Your task to perform on an android device: check android version Image 0: 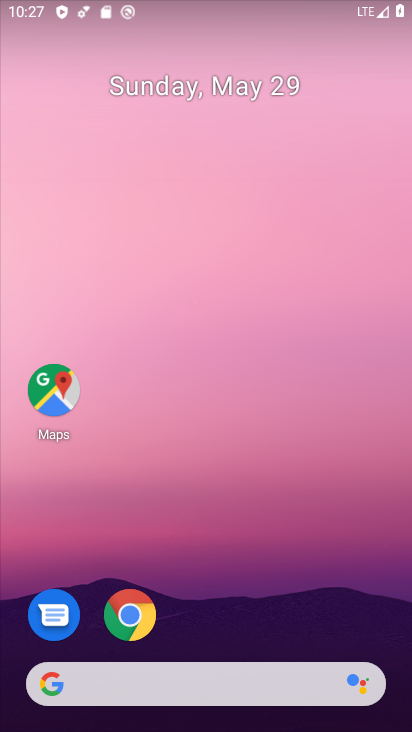
Step 0: drag from (366, 640) to (365, 198)
Your task to perform on an android device: check android version Image 1: 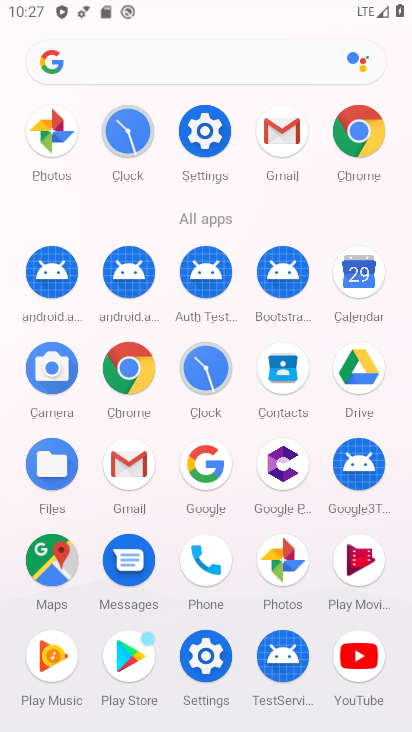
Step 1: click (212, 660)
Your task to perform on an android device: check android version Image 2: 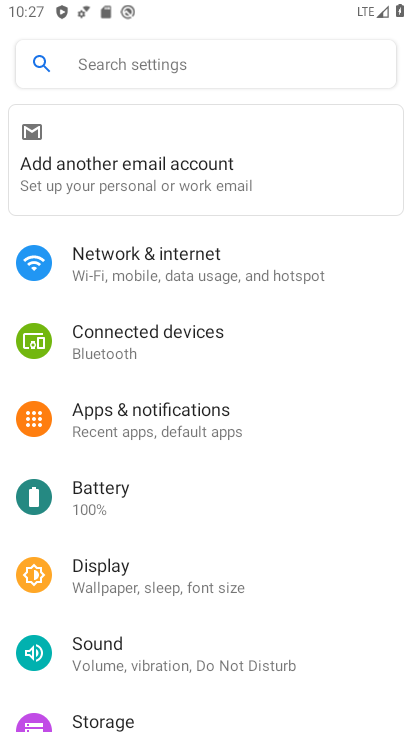
Step 2: drag from (353, 594) to (360, 464)
Your task to perform on an android device: check android version Image 3: 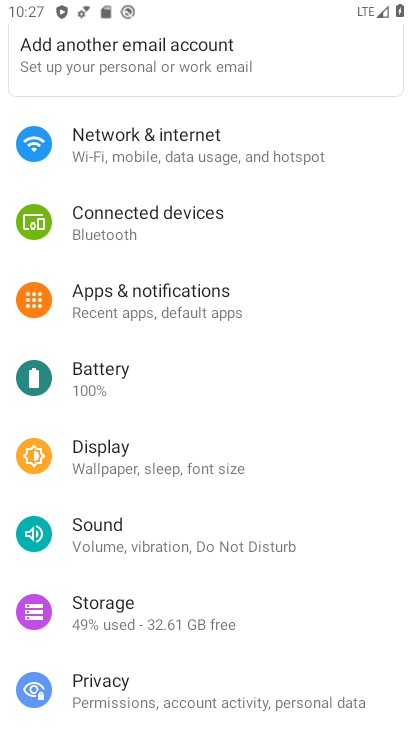
Step 3: drag from (345, 619) to (359, 508)
Your task to perform on an android device: check android version Image 4: 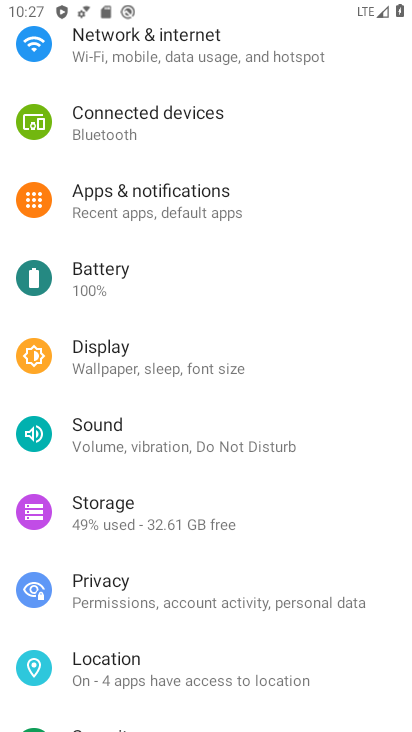
Step 4: drag from (343, 674) to (342, 546)
Your task to perform on an android device: check android version Image 5: 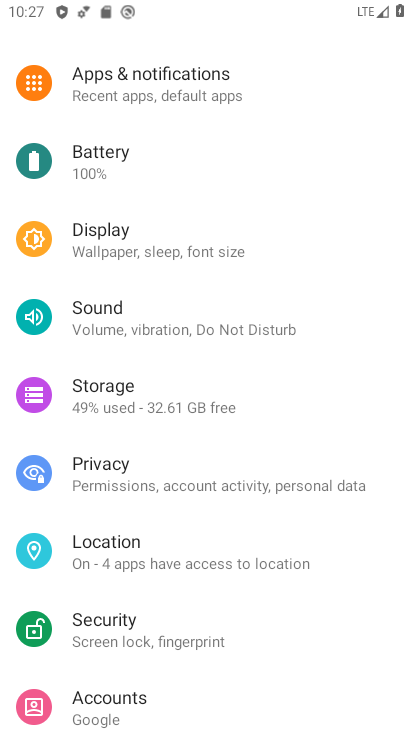
Step 5: drag from (344, 638) to (337, 522)
Your task to perform on an android device: check android version Image 6: 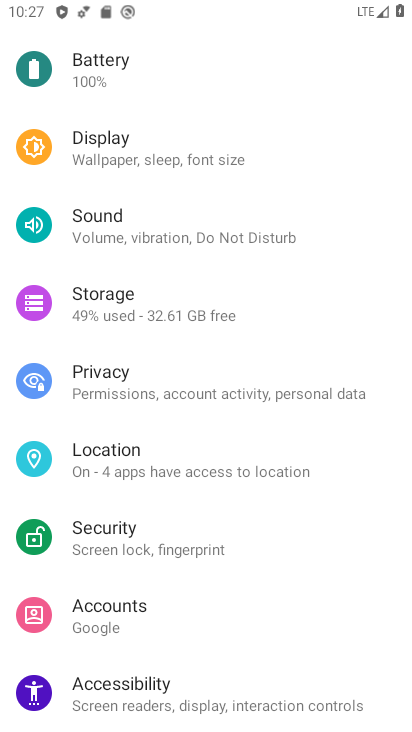
Step 6: drag from (329, 648) to (344, 555)
Your task to perform on an android device: check android version Image 7: 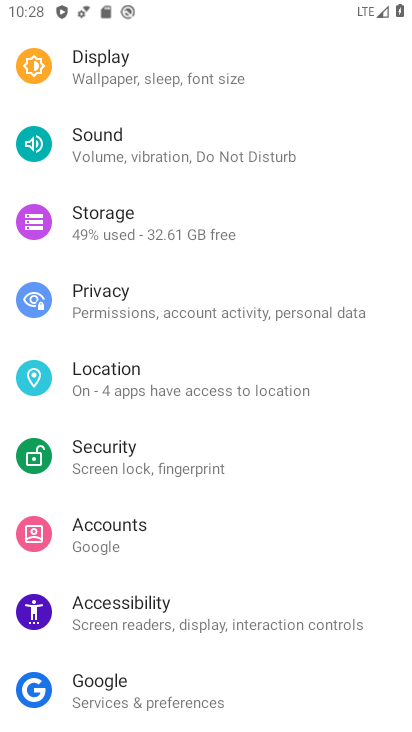
Step 7: drag from (337, 674) to (337, 587)
Your task to perform on an android device: check android version Image 8: 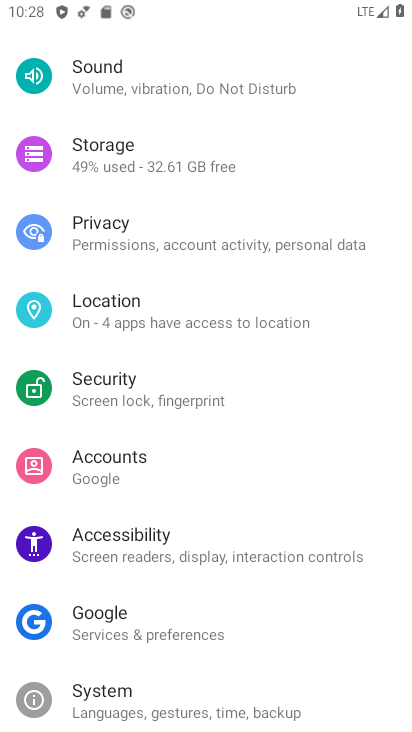
Step 8: drag from (336, 679) to (339, 566)
Your task to perform on an android device: check android version Image 9: 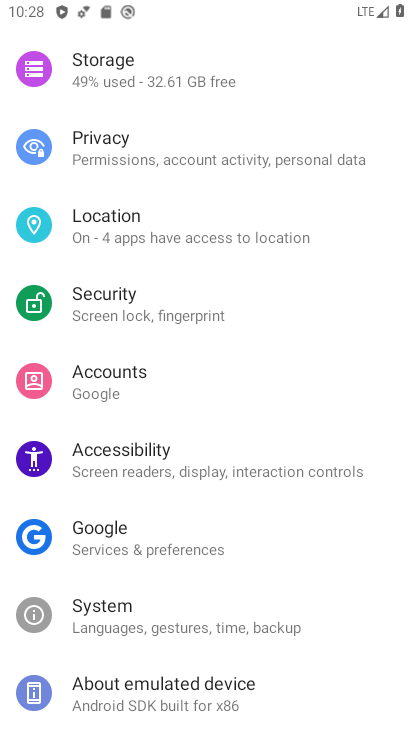
Step 9: drag from (332, 672) to (341, 541)
Your task to perform on an android device: check android version Image 10: 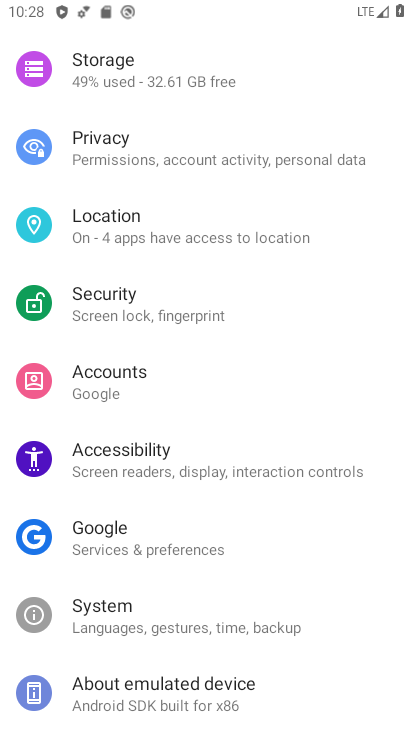
Step 10: click (269, 620)
Your task to perform on an android device: check android version Image 11: 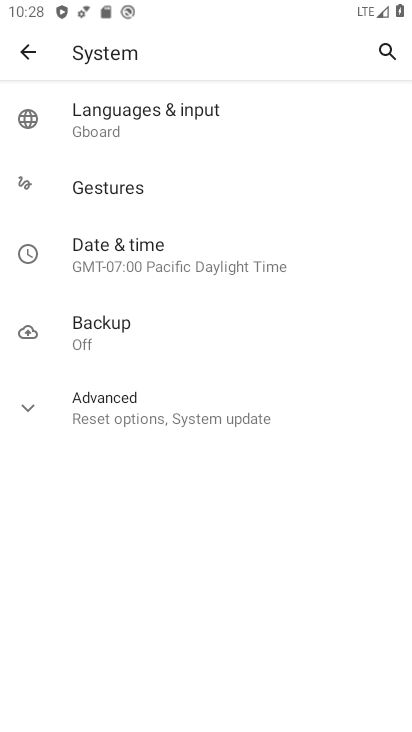
Step 11: click (249, 426)
Your task to perform on an android device: check android version Image 12: 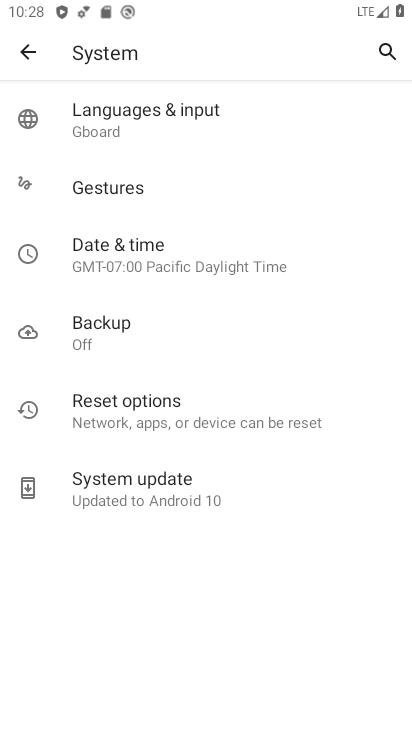
Step 12: click (188, 498)
Your task to perform on an android device: check android version Image 13: 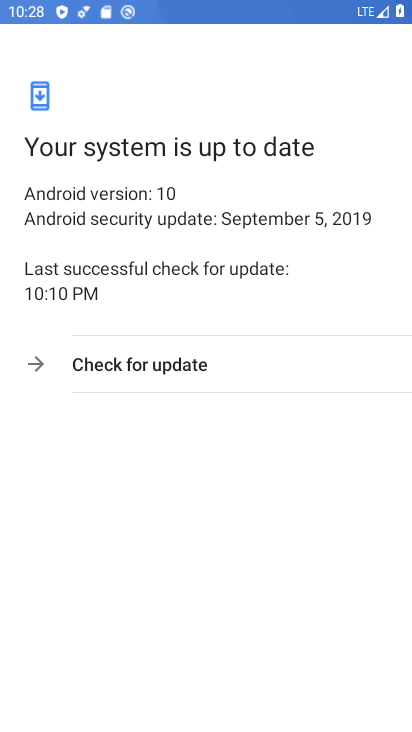
Step 13: task complete